Your task to perform on an android device: find which apps use the phone's location Image 0: 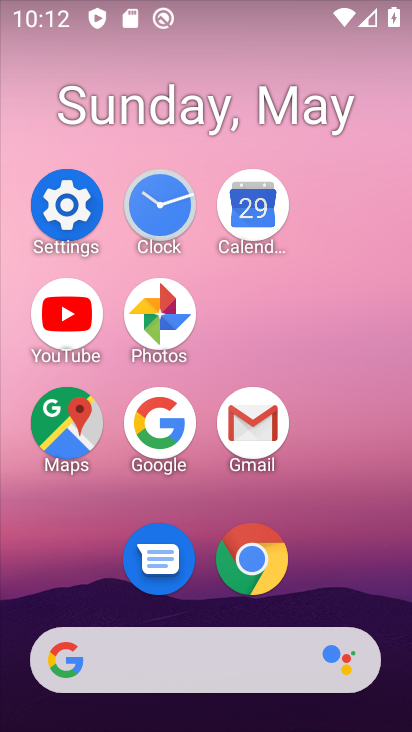
Step 0: click (47, 220)
Your task to perform on an android device: find which apps use the phone's location Image 1: 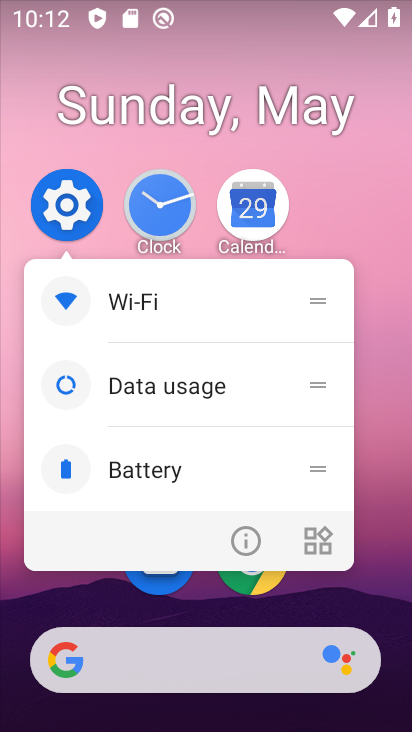
Step 1: click (70, 207)
Your task to perform on an android device: find which apps use the phone's location Image 2: 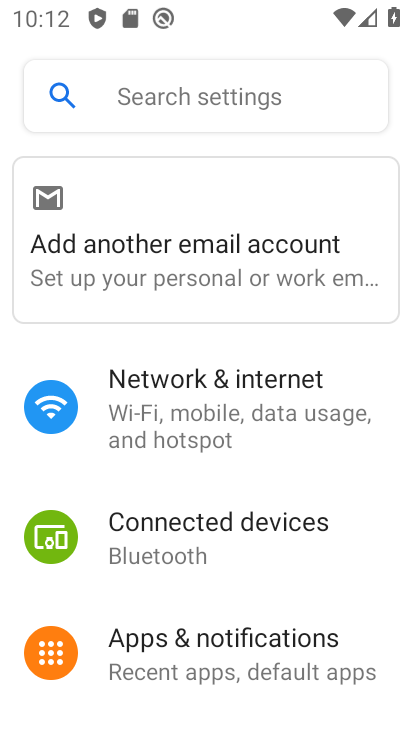
Step 2: drag from (260, 482) to (269, 174)
Your task to perform on an android device: find which apps use the phone's location Image 3: 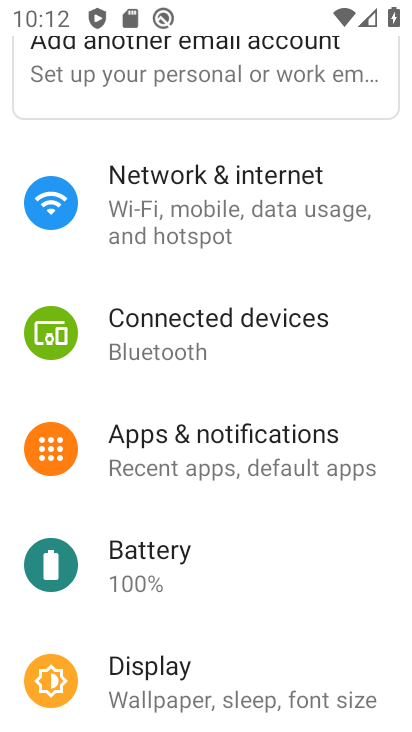
Step 3: drag from (271, 568) to (212, 125)
Your task to perform on an android device: find which apps use the phone's location Image 4: 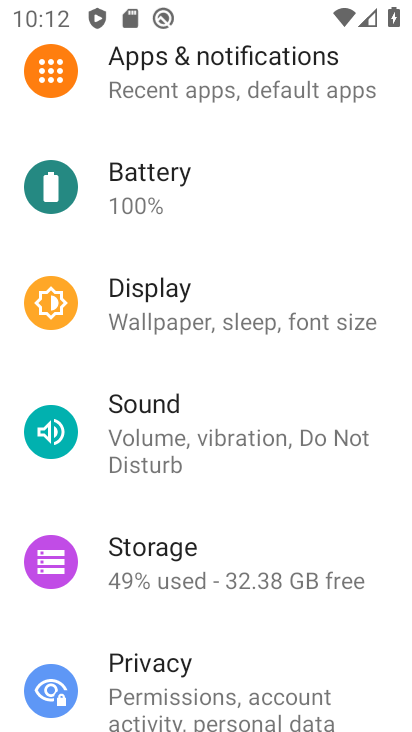
Step 4: drag from (221, 609) to (199, 160)
Your task to perform on an android device: find which apps use the phone's location Image 5: 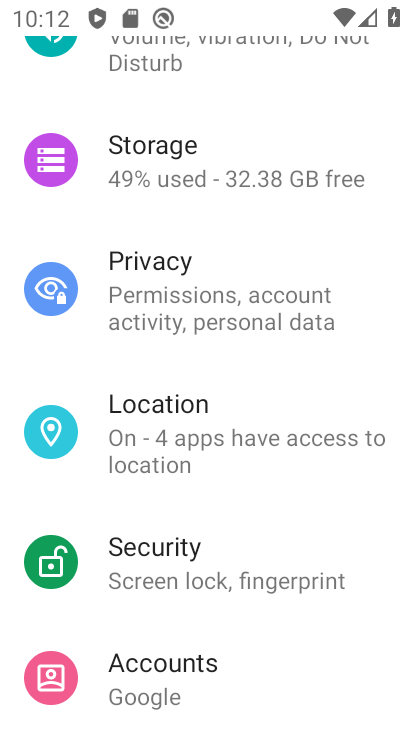
Step 5: click (230, 476)
Your task to perform on an android device: find which apps use the phone's location Image 6: 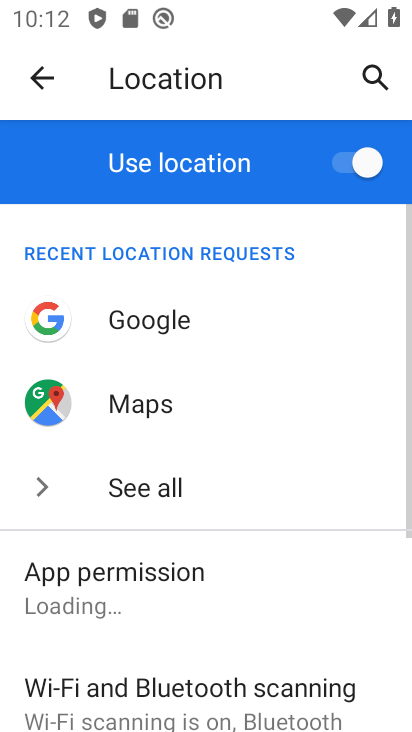
Step 6: task complete